Your task to perform on an android device: open sync settings in chrome Image 0: 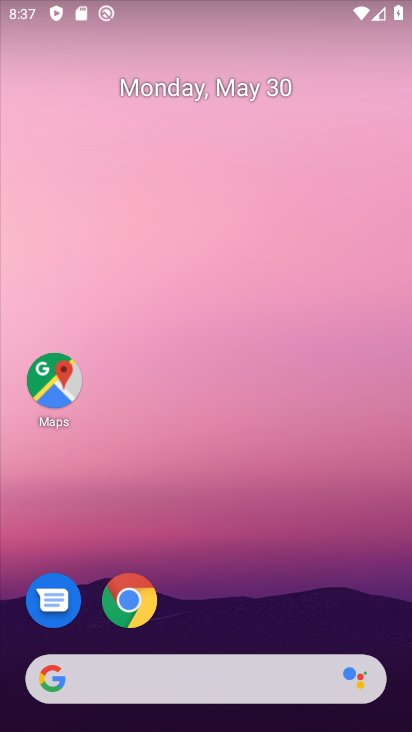
Step 0: drag from (280, 538) to (196, 1)
Your task to perform on an android device: open sync settings in chrome Image 1: 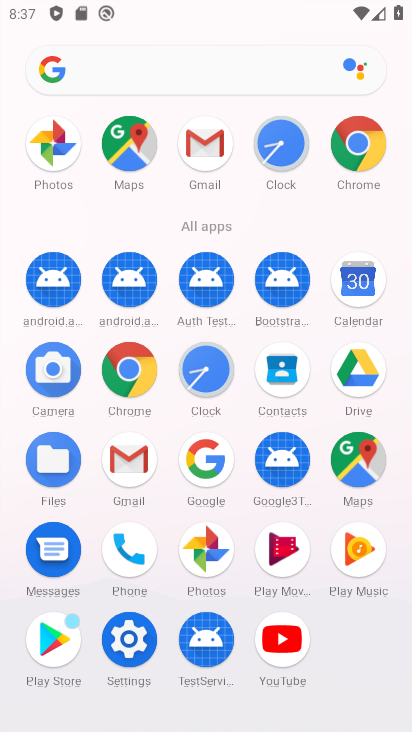
Step 1: drag from (8, 526) to (6, 281)
Your task to perform on an android device: open sync settings in chrome Image 2: 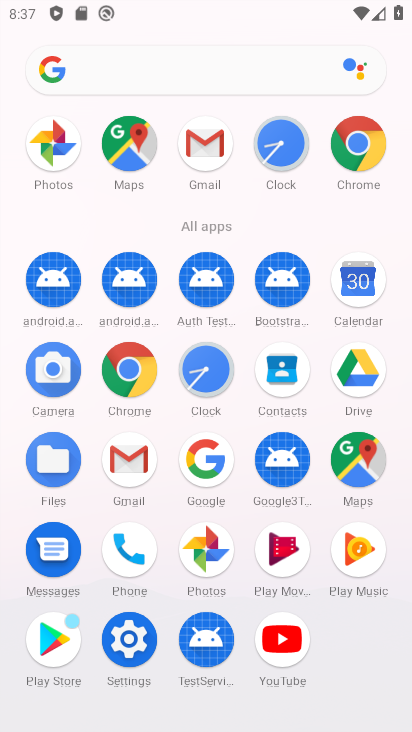
Step 2: click (129, 361)
Your task to perform on an android device: open sync settings in chrome Image 3: 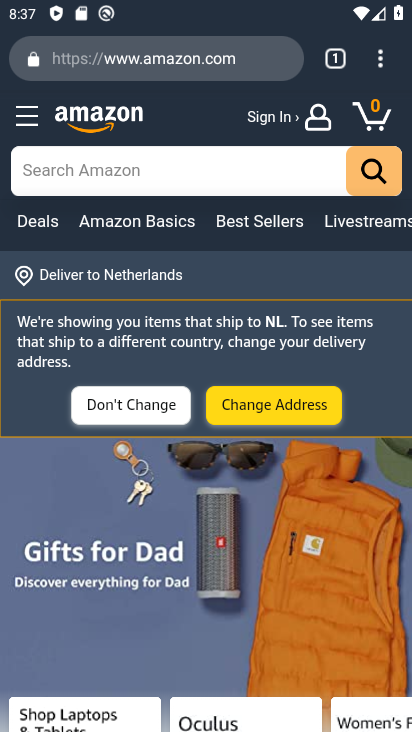
Step 3: drag from (382, 54) to (182, 625)
Your task to perform on an android device: open sync settings in chrome Image 4: 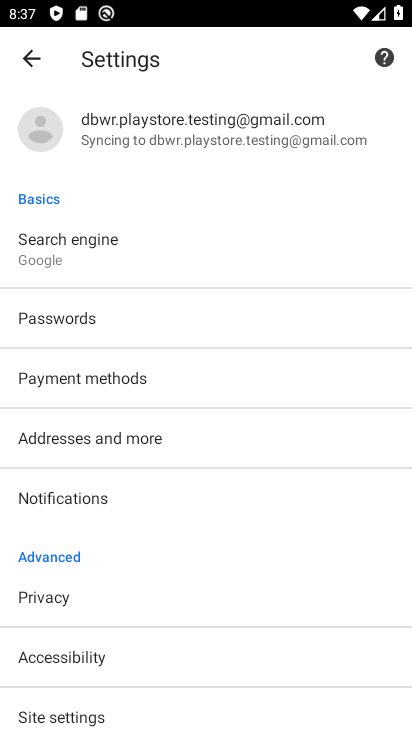
Step 4: click (158, 137)
Your task to perform on an android device: open sync settings in chrome Image 5: 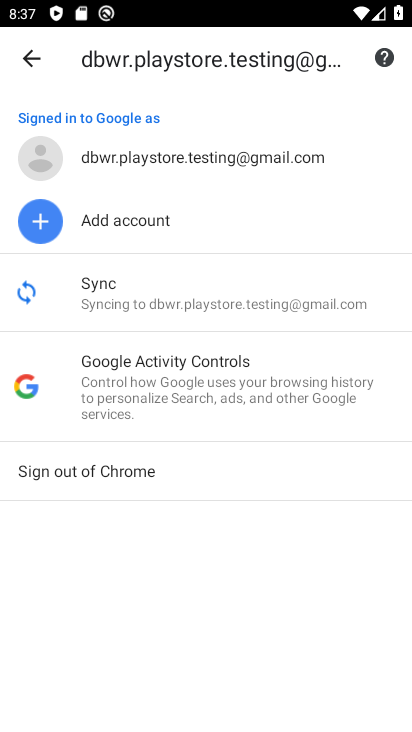
Step 5: click (155, 296)
Your task to perform on an android device: open sync settings in chrome Image 6: 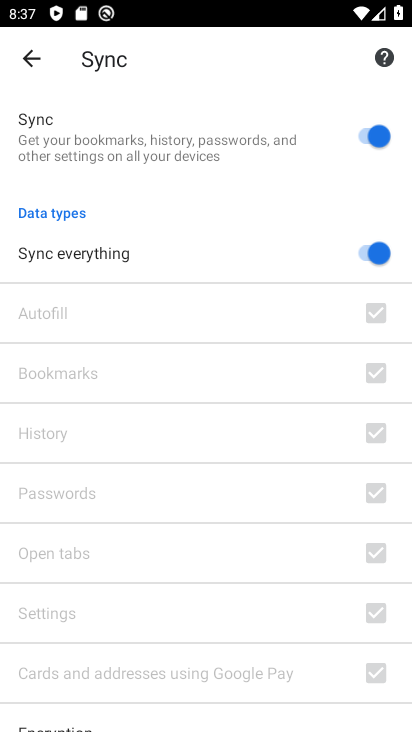
Step 6: task complete